Your task to perform on an android device: refresh tabs in the chrome app Image 0: 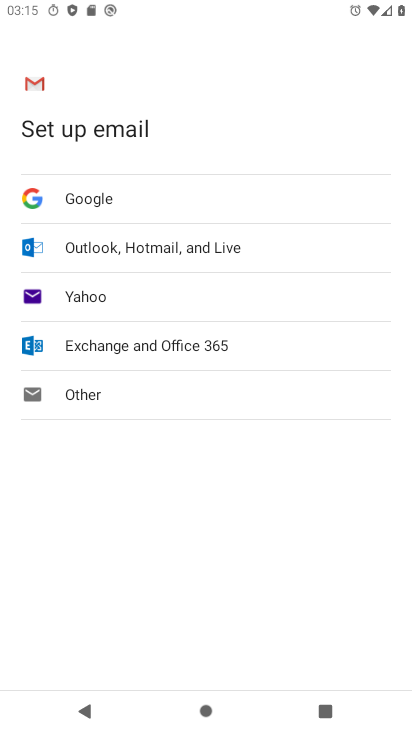
Step 0: press back button
Your task to perform on an android device: refresh tabs in the chrome app Image 1: 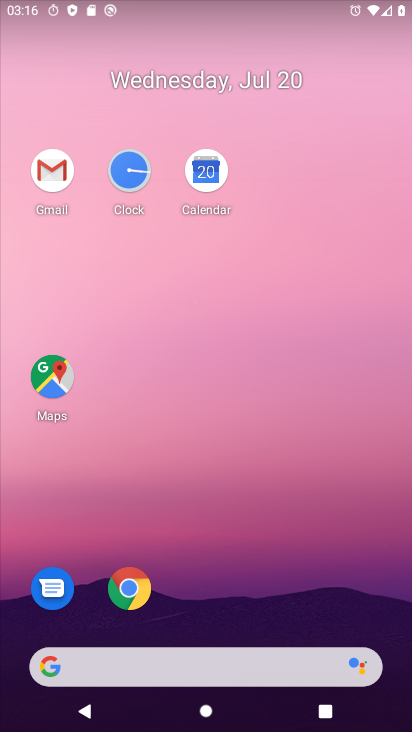
Step 1: click (135, 576)
Your task to perform on an android device: refresh tabs in the chrome app Image 2: 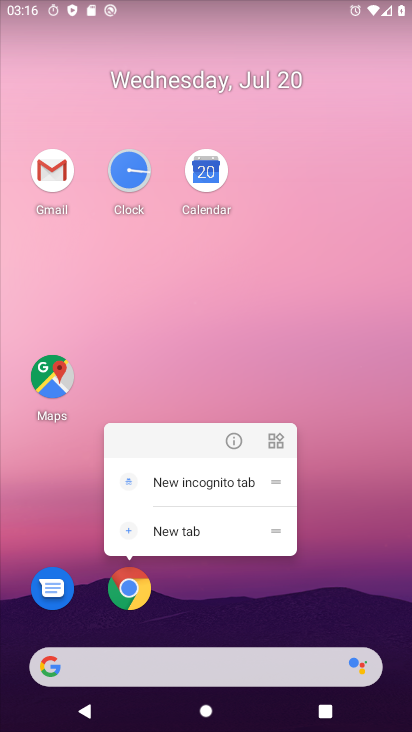
Step 2: click (135, 576)
Your task to perform on an android device: refresh tabs in the chrome app Image 3: 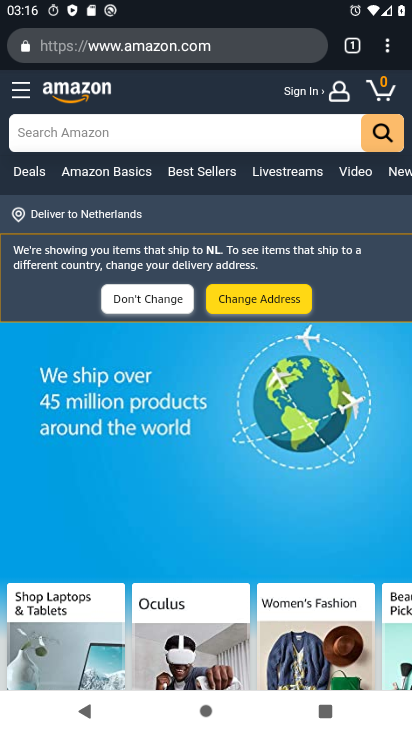
Step 3: click (386, 50)
Your task to perform on an android device: refresh tabs in the chrome app Image 4: 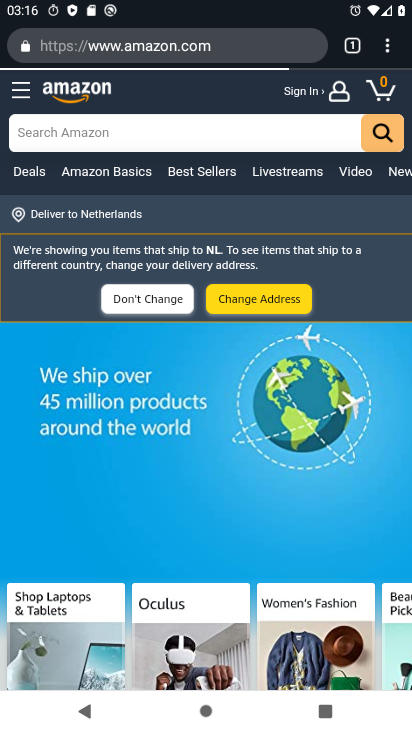
Step 4: click (386, 50)
Your task to perform on an android device: refresh tabs in the chrome app Image 5: 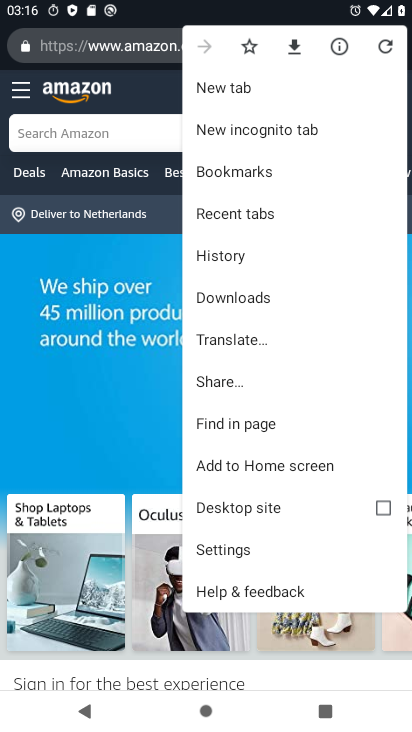
Step 5: click (381, 43)
Your task to perform on an android device: refresh tabs in the chrome app Image 6: 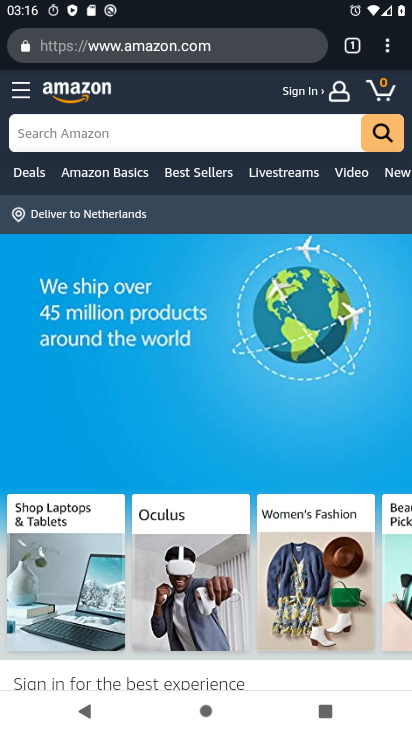
Step 6: task complete